Your task to perform on an android device: see creations saved in the google photos Image 0: 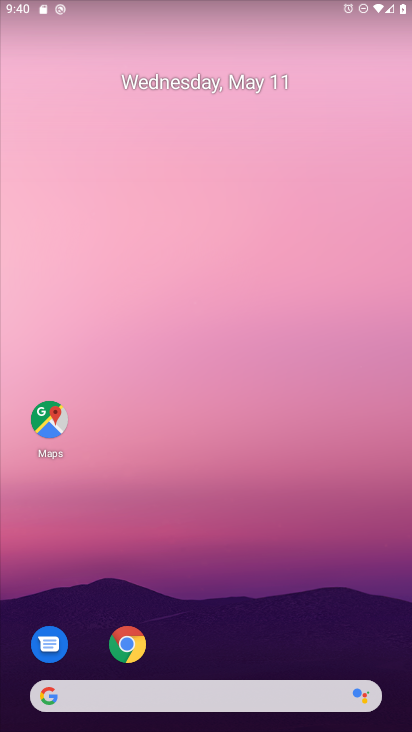
Step 0: drag from (292, 532) to (212, 15)
Your task to perform on an android device: see creations saved in the google photos Image 1: 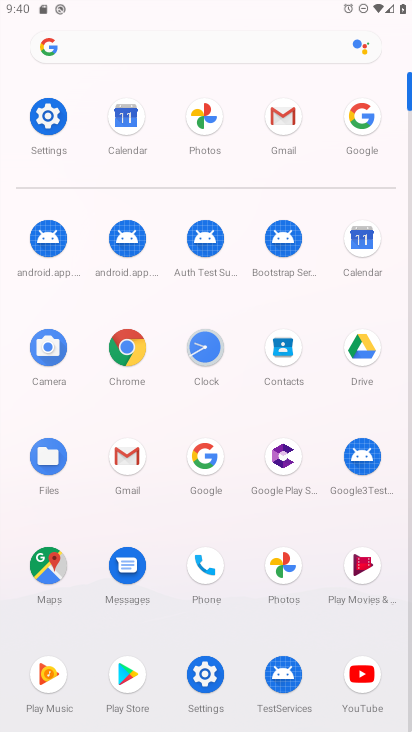
Step 1: click (198, 115)
Your task to perform on an android device: see creations saved in the google photos Image 2: 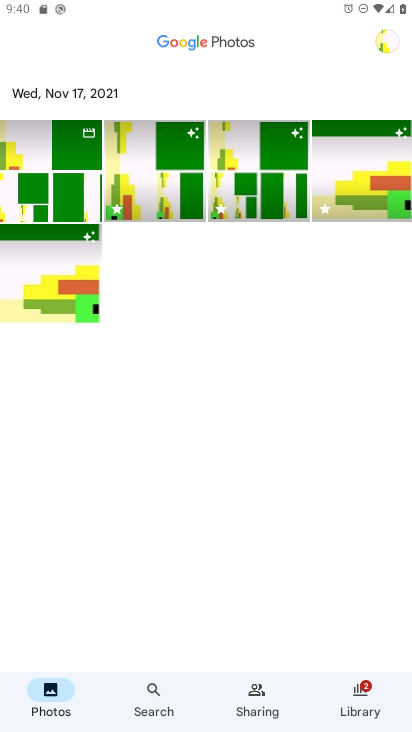
Step 2: click (152, 690)
Your task to perform on an android device: see creations saved in the google photos Image 3: 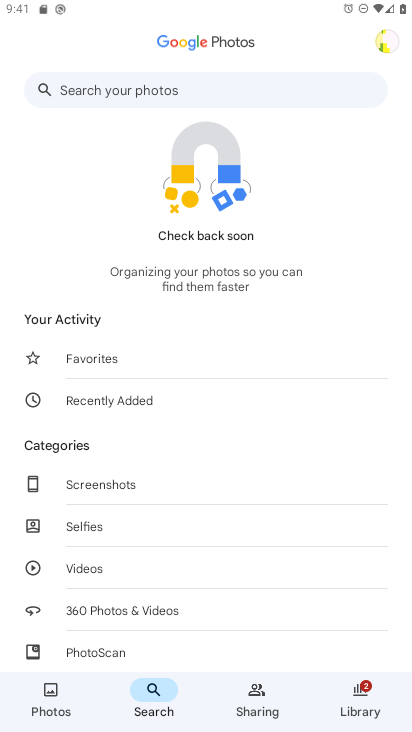
Step 3: click (93, 86)
Your task to perform on an android device: see creations saved in the google photos Image 4: 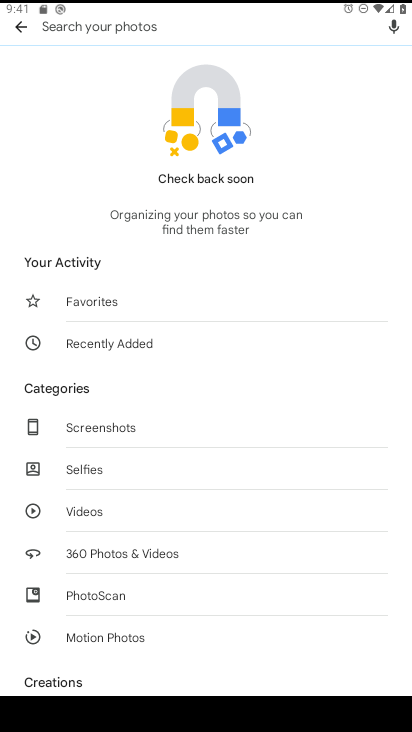
Step 4: click (55, 679)
Your task to perform on an android device: see creations saved in the google photos Image 5: 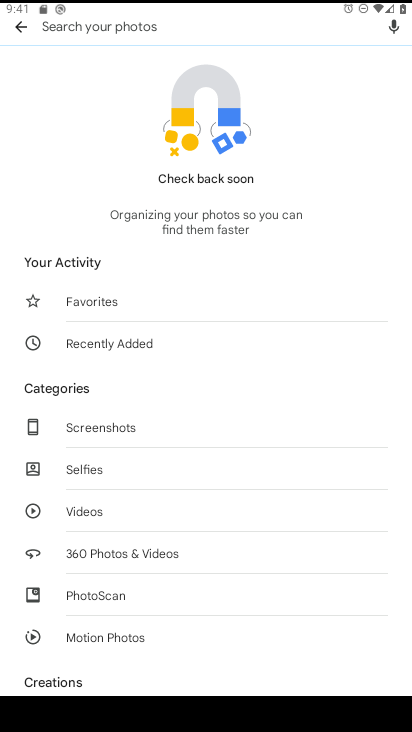
Step 5: type "creations"
Your task to perform on an android device: see creations saved in the google photos Image 6: 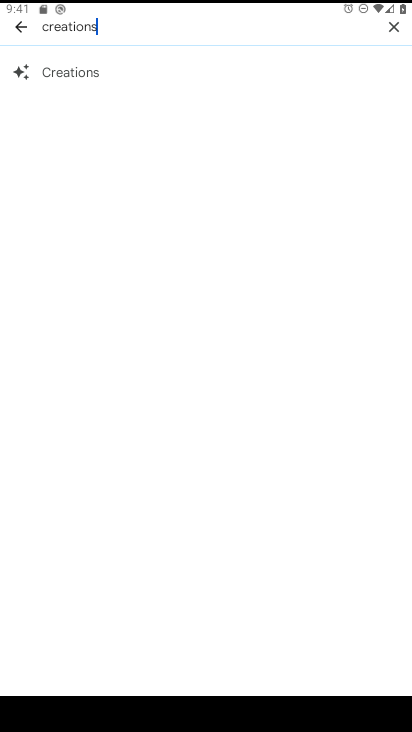
Step 6: click (77, 68)
Your task to perform on an android device: see creations saved in the google photos Image 7: 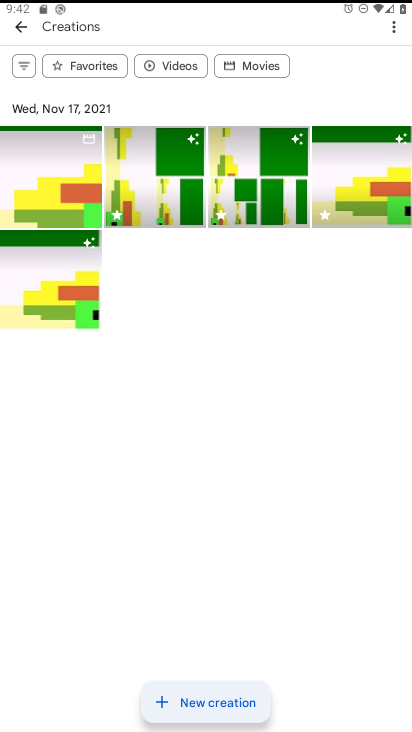
Step 7: task complete